Your task to perform on an android device: set the stopwatch Image 0: 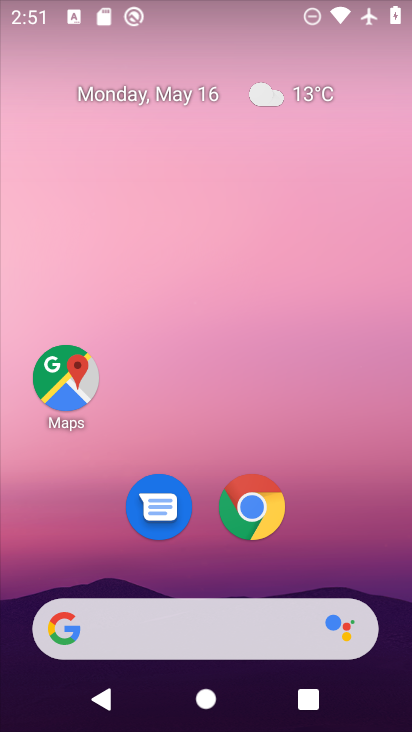
Step 0: drag from (243, 564) to (270, 204)
Your task to perform on an android device: set the stopwatch Image 1: 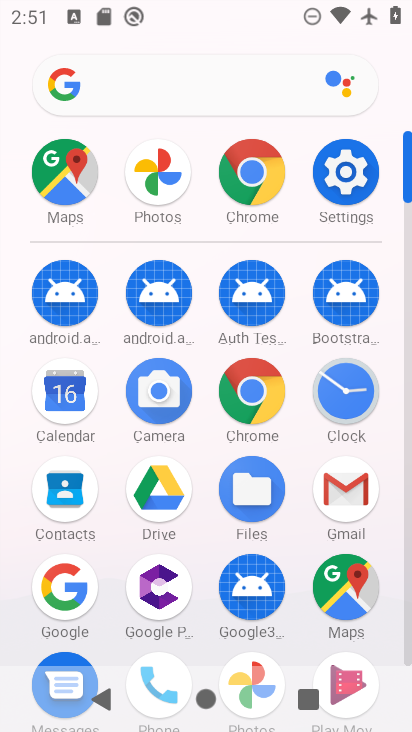
Step 1: drag from (298, 249) to (303, 70)
Your task to perform on an android device: set the stopwatch Image 2: 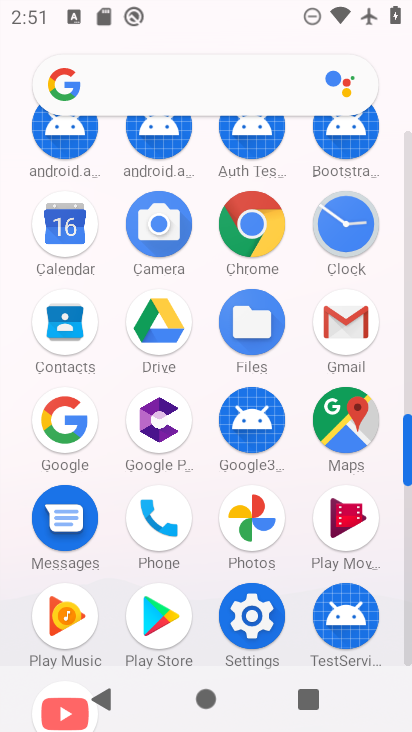
Step 2: drag from (294, 246) to (307, 506)
Your task to perform on an android device: set the stopwatch Image 3: 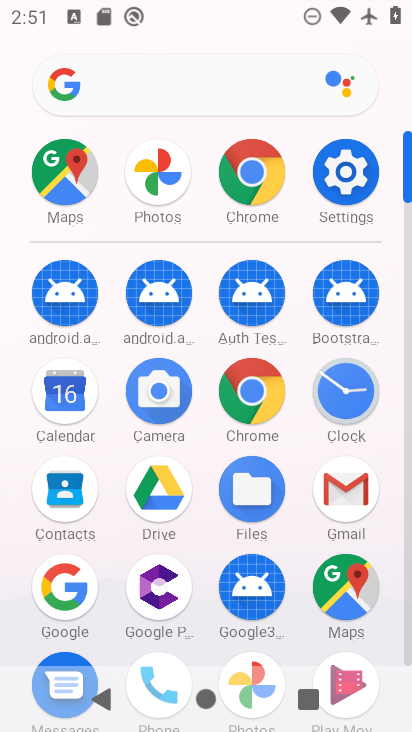
Step 3: click (353, 409)
Your task to perform on an android device: set the stopwatch Image 4: 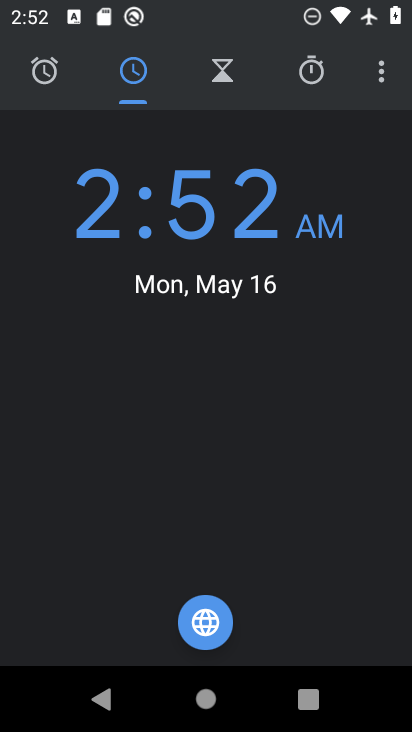
Step 4: click (302, 72)
Your task to perform on an android device: set the stopwatch Image 5: 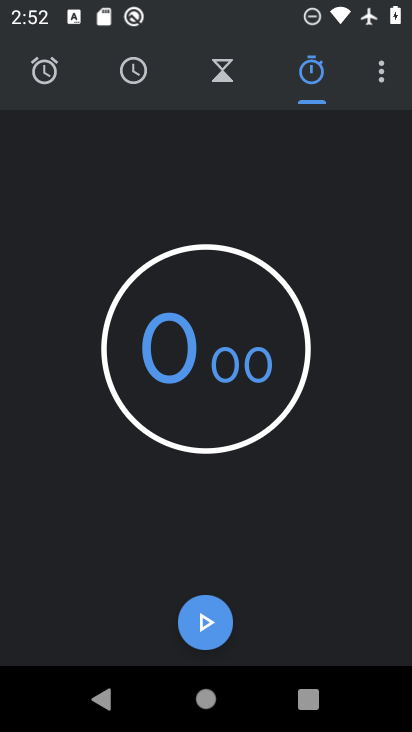
Step 5: click (227, 625)
Your task to perform on an android device: set the stopwatch Image 6: 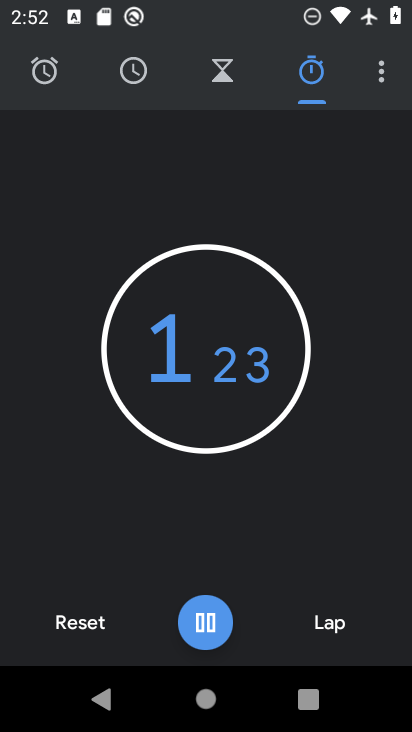
Step 6: task complete